Your task to perform on an android device: Search for vegetarian restaurants on Maps Image 0: 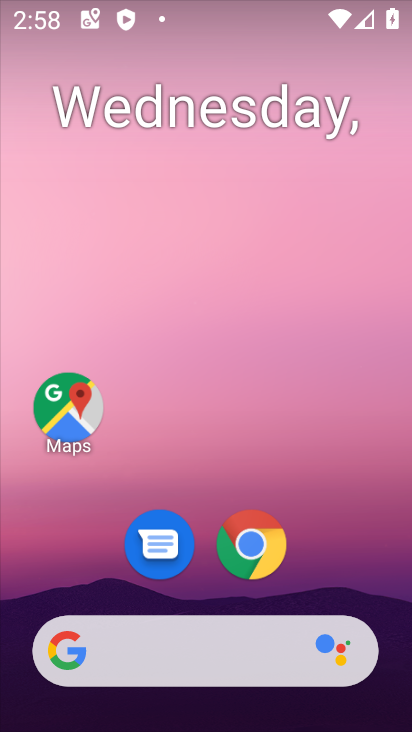
Step 0: drag from (336, 542) to (325, 157)
Your task to perform on an android device: Search for vegetarian restaurants on Maps Image 1: 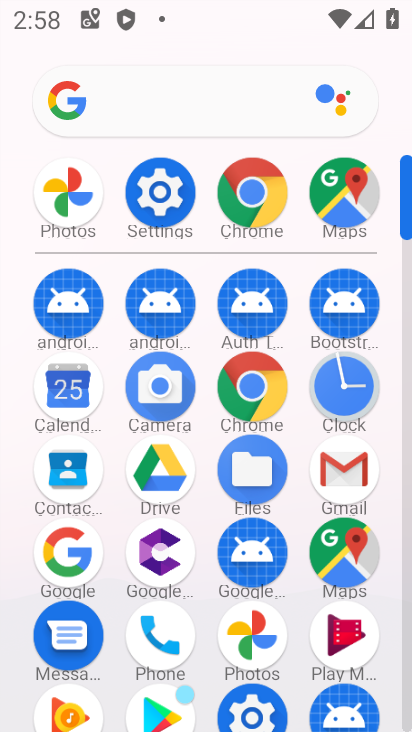
Step 1: click (361, 567)
Your task to perform on an android device: Search for vegetarian restaurants on Maps Image 2: 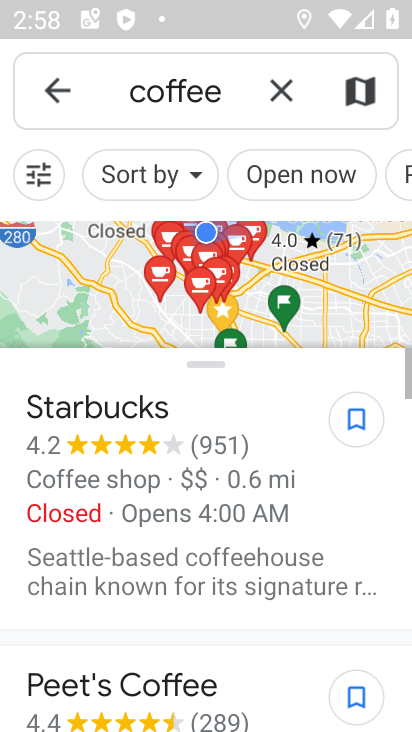
Step 2: click (285, 88)
Your task to perform on an android device: Search for vegetarian restaurants on Maps Image 3: 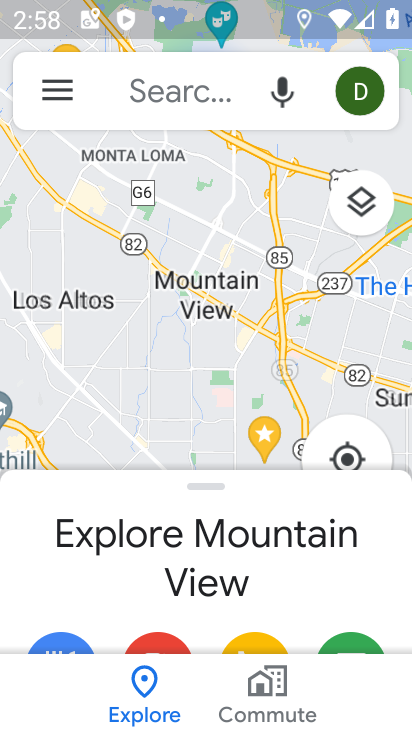
Step 3: click (164, 100)
Your task to perform on an android device: Search for vegetarian restaurants on Maps Image 4: 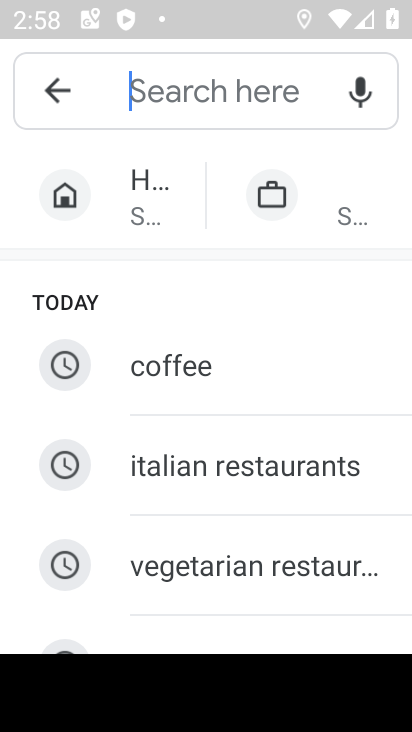
Step 4: click (182, 575)
Your task to perform on an android device: Search for vegetarian restaurants on Maps Image 5: 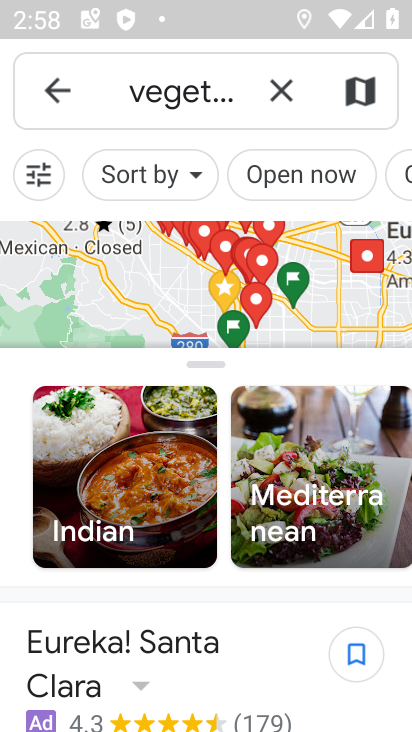
Step 5: task complete